Your task to perform on an android device: Open wifi settings Image 0: 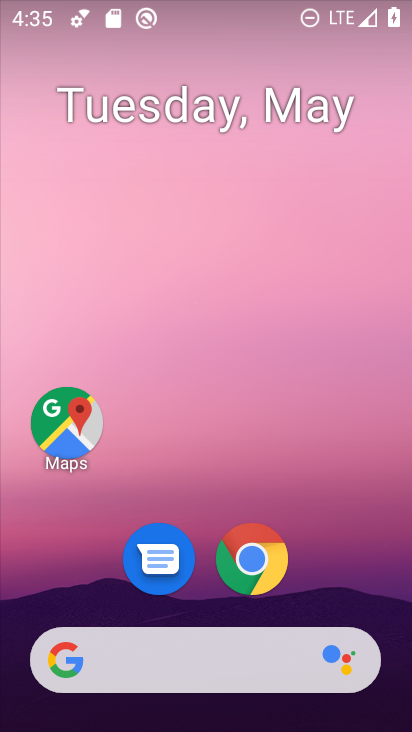
Step 0: drag from (229, 712) to (216, 109)
Your task to perform on an android device: Open wifi settings Image 1: 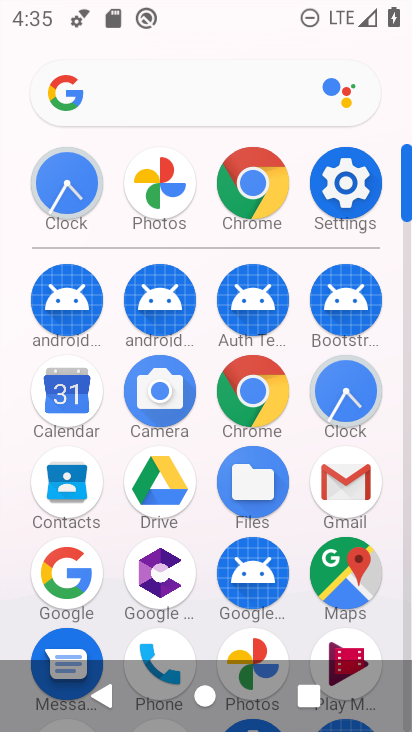
Step 1: click (350, 193)
Your task to perform on an android device: Open wifi settings Image 2: 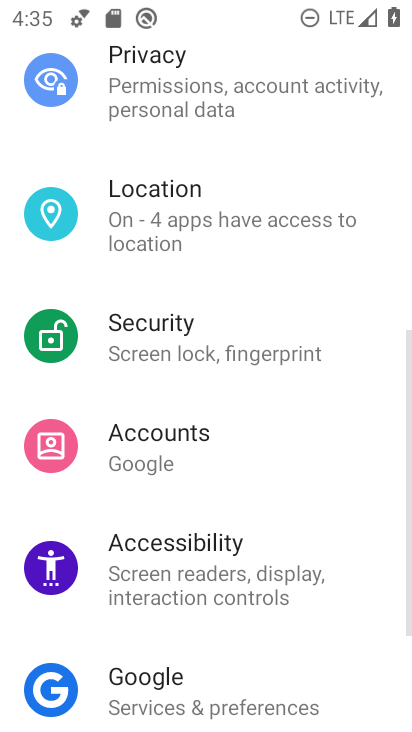
Step 2: drag from (254, 125) to (272, 565)
Your task to perform on an android device: Open wifi settings Image 3: 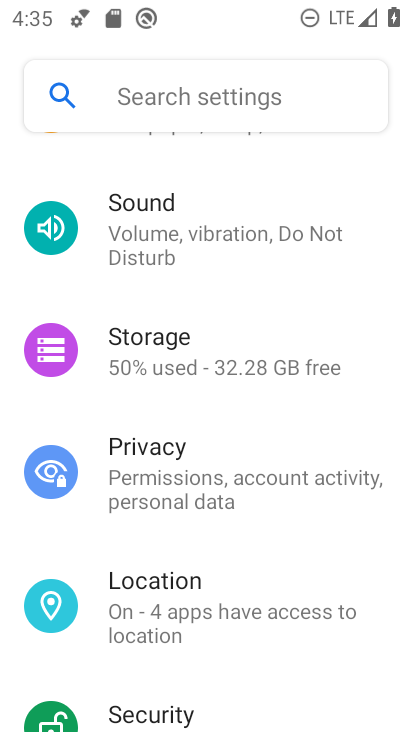
Step 3: drag from (277, 177) to (281, 729)
Your task to perform on an android device: Open wifi settings Image 4: 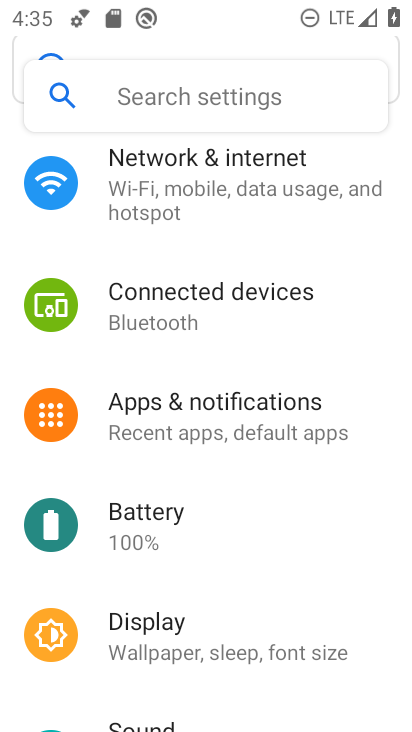
Step 4: click (183, 163)
Your task to perform on an android device: Open wifi settings Image 5: 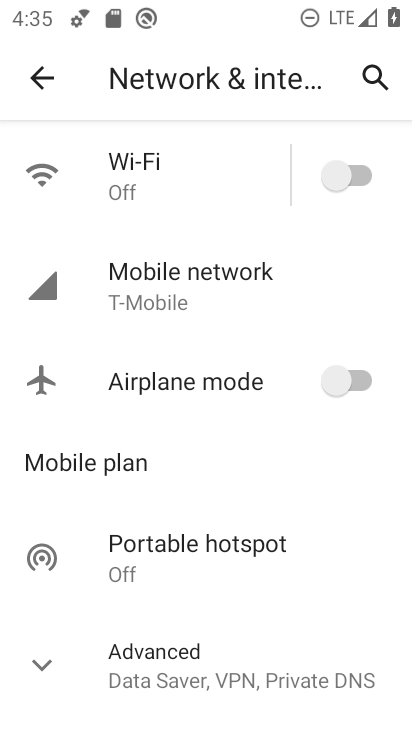
Step 5: click (132, 167)
Your task to perform on an android device: Open wifi settings Image 6: 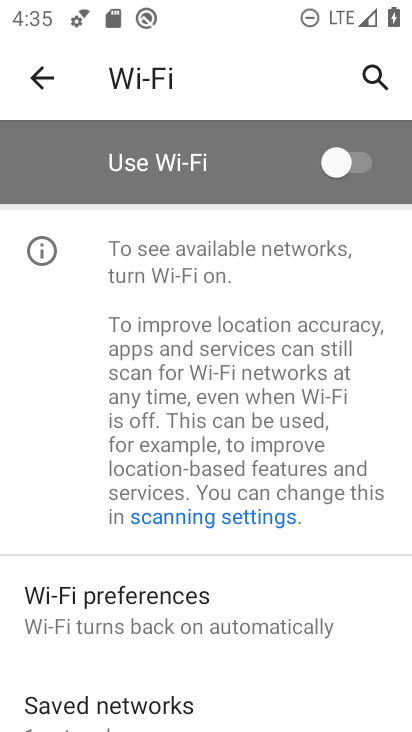
Step 6: task complete